Your task to perform on an android device: change alarm snooze length Image 0: 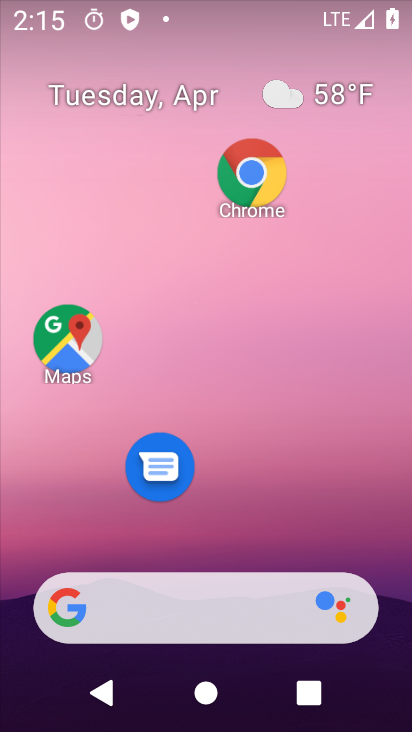
Step 0: drag from (321, 560) to (253, 71)
Your task to perform on an android device: change alarm snooze length Image 1: 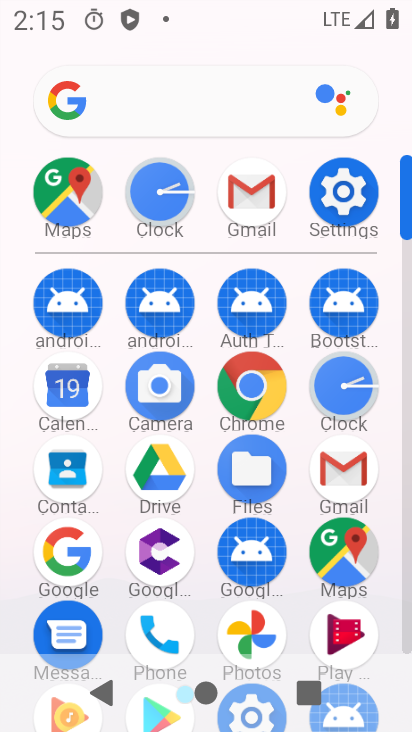
Step 1: click (151, 194)
Your task to perform on an android device: change alarm snooze length Image 2: 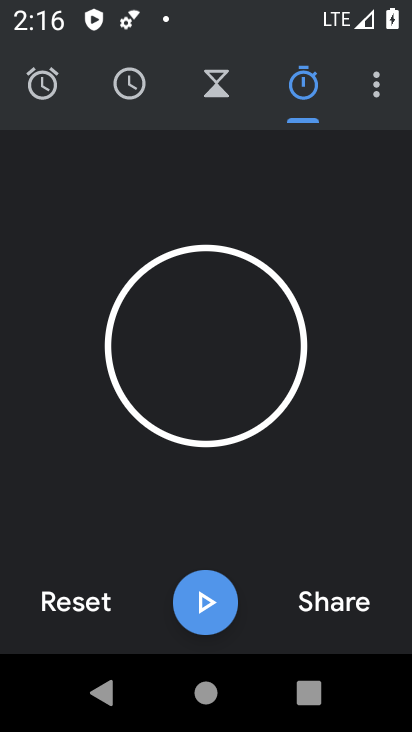
Step 2: click (363, 87)
Your task to perform on an android device: change alarm snooze length Image 3: 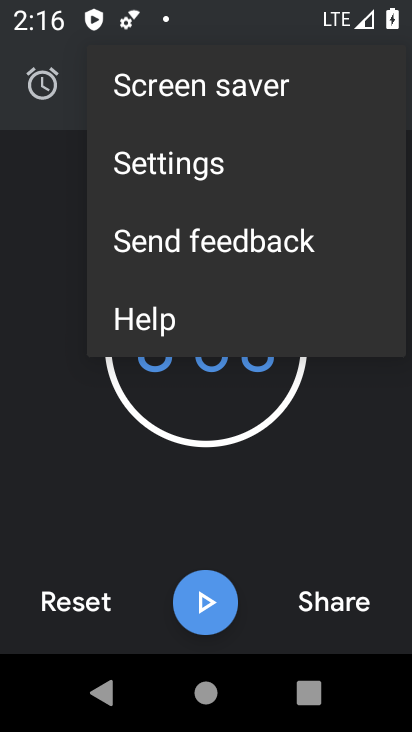
Step 3: click (202, 151)
Your task to perform on an android device: change alarm snooze length Image 4: 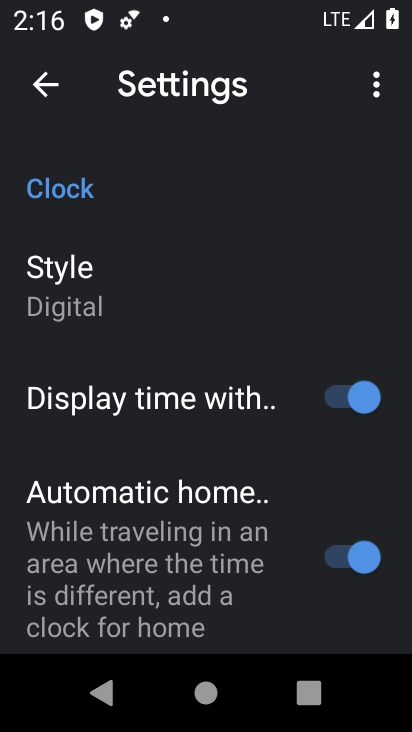
Step 4: drag from (221, 563) to (256, 210)
Your task to perform on an android device: change alarm snooze length Image 5: 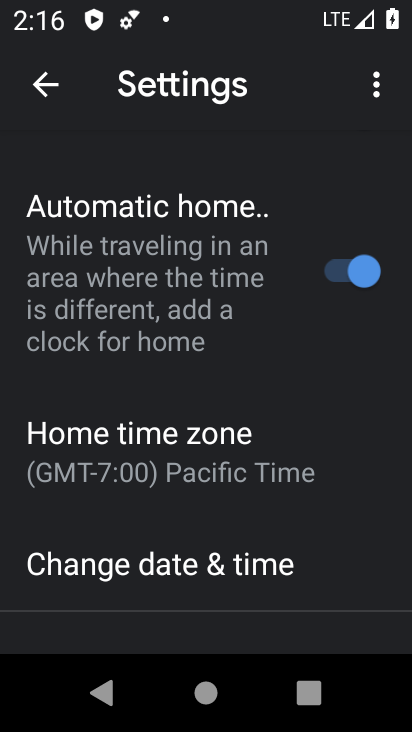
Step 5: drag from (182, 364) to (224, 720)
Your task to perform on an android device: change alarm snooze length Image 6: 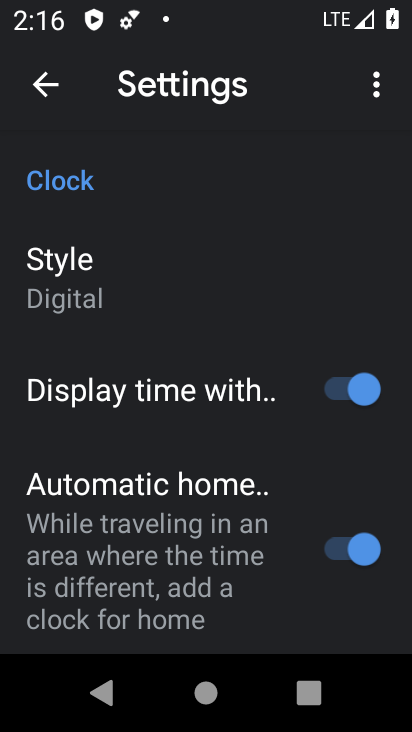
Step 6: drag from (199, 456) to (202, 96)
Your task to perform on an android device: change alarm snooze length Image 7: 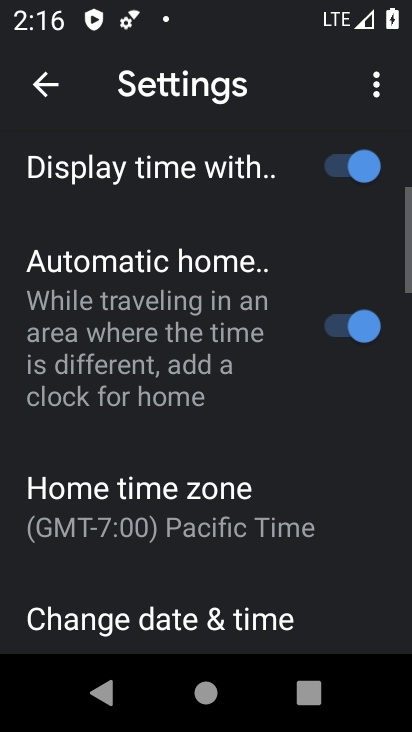
Step 7: drag from (150, 522) to (169, 124)
Your task to perform on an android device: change alarm snooze length Image 8: 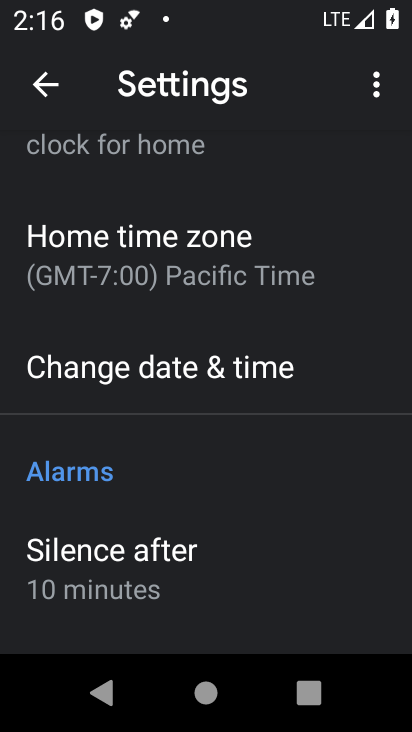
Step 8: drag from (143, 588) to (146, 213)
Your task to perform on an android device: change alarm snooze length Image 9: 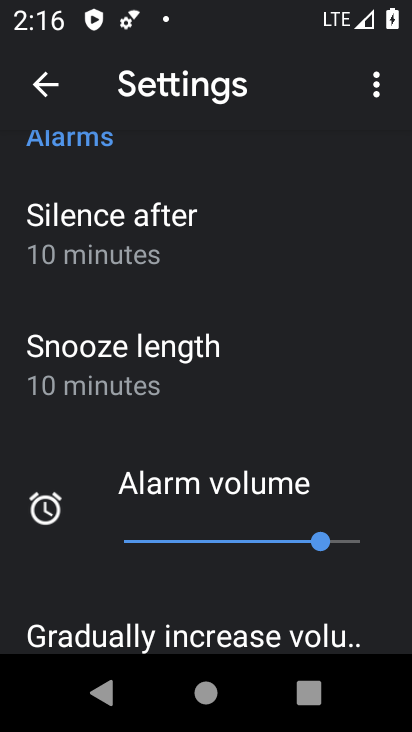
Step 9: click (157, 389)
Your task to perform on an android device: change alarm snooze length Image 10: 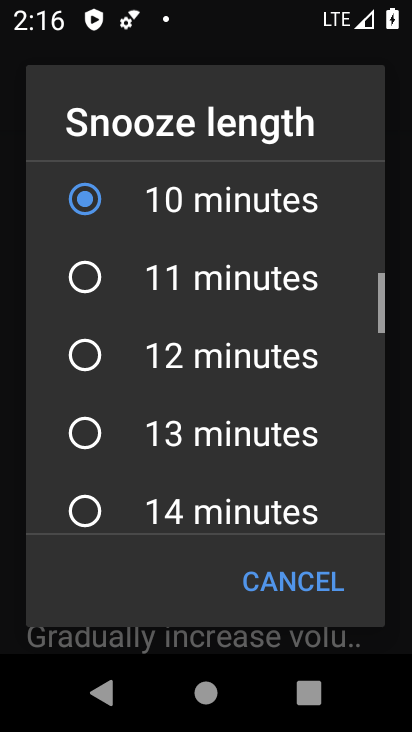
Step 10: click (139, 279)
Your task to perform on an android device: change alarm snooze length Image 11: 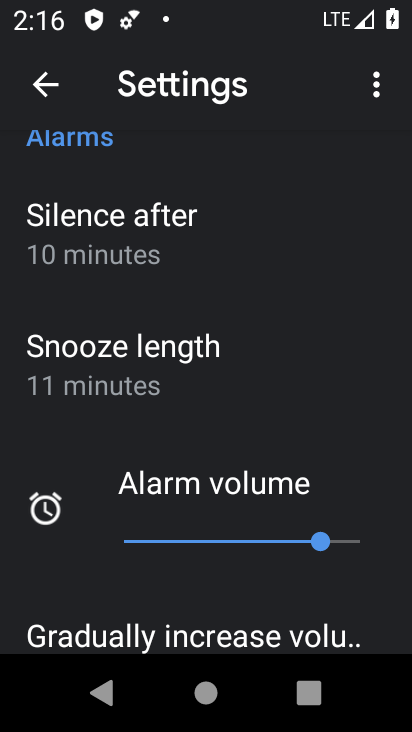
Step 11: task complete